Your task to perform on an android device: turn on javascript in the chrome app Image 0: 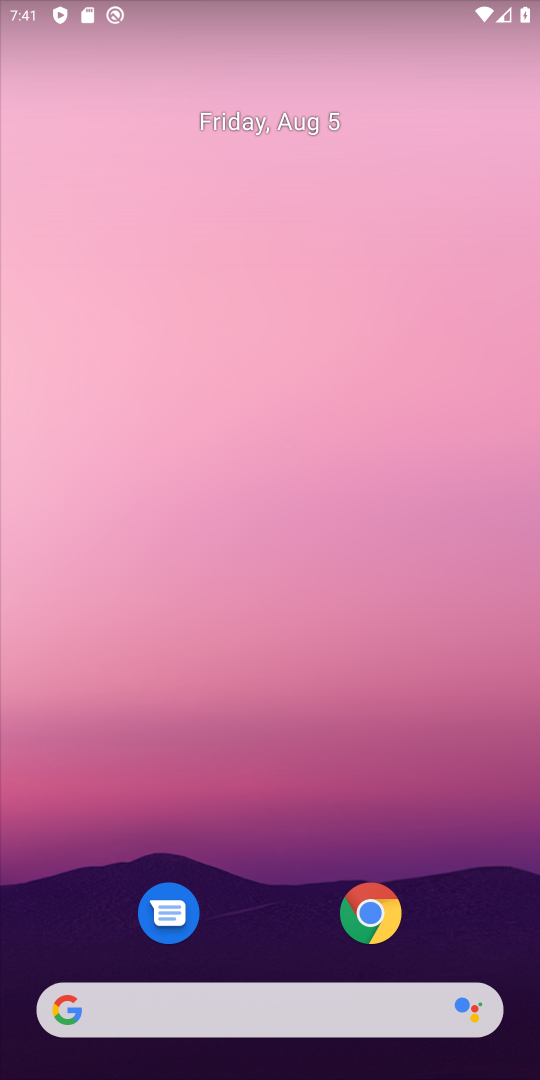
Step 0: press home button
Your task to perform on an android device: turn on javascript in the chrome app Image 1: 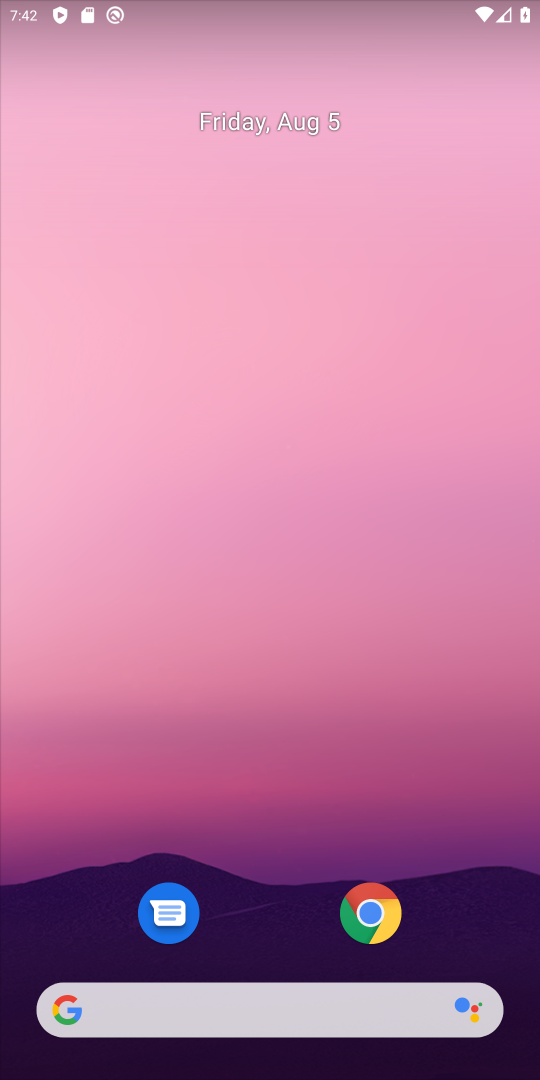
Step 1: drag from (275, 906) to (282, 276)
Your task to perform on an android device: turn on javascript in the chrome app Image 2: 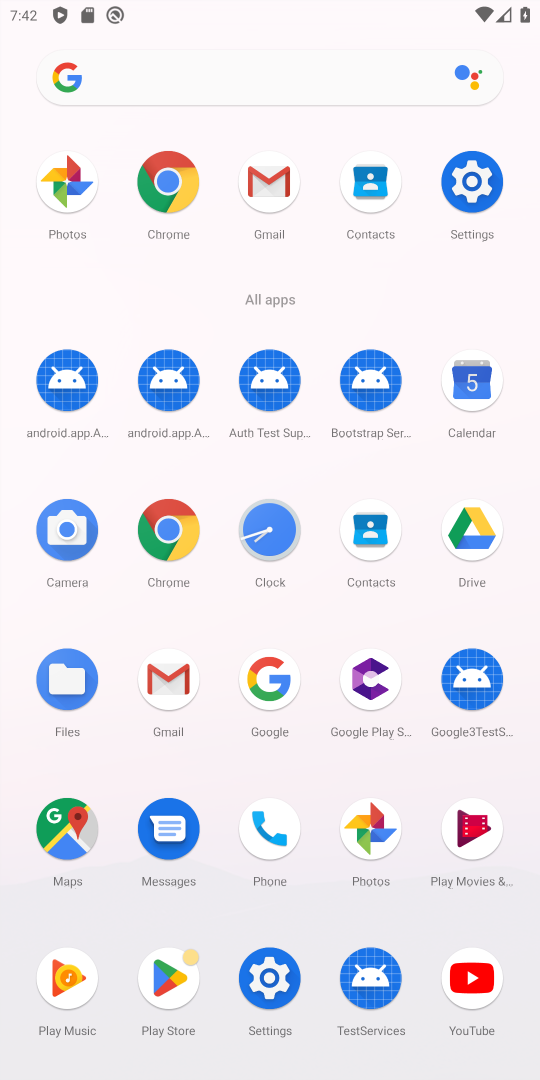
Step 2: click (162, 529)
Your task to perform on an android device: turn on javascript in the chrome app Image 3: 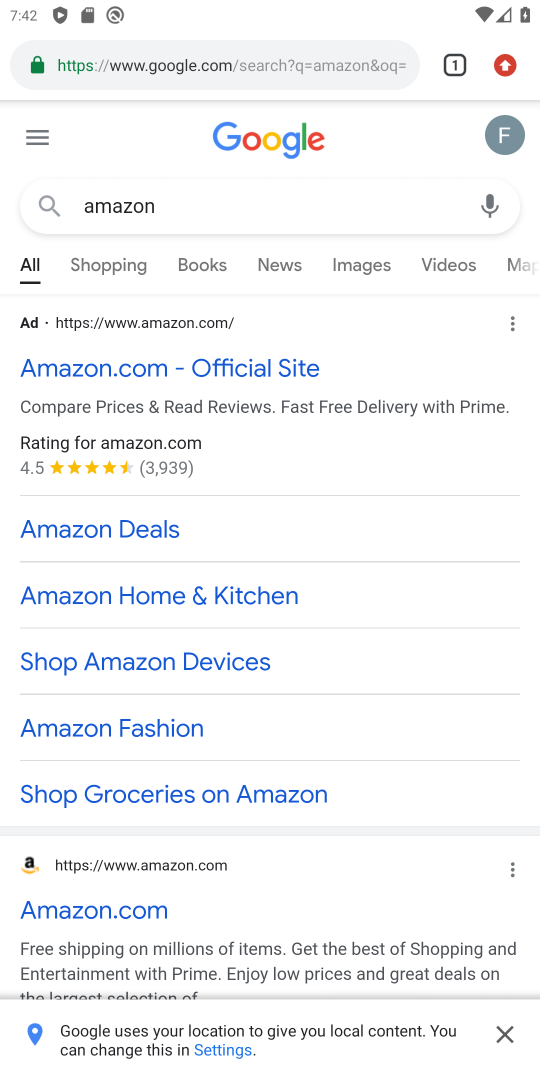
Step 3: click (507, 72)
Your task to perform on an android device: turn on javascript in the chrome app Image 4: 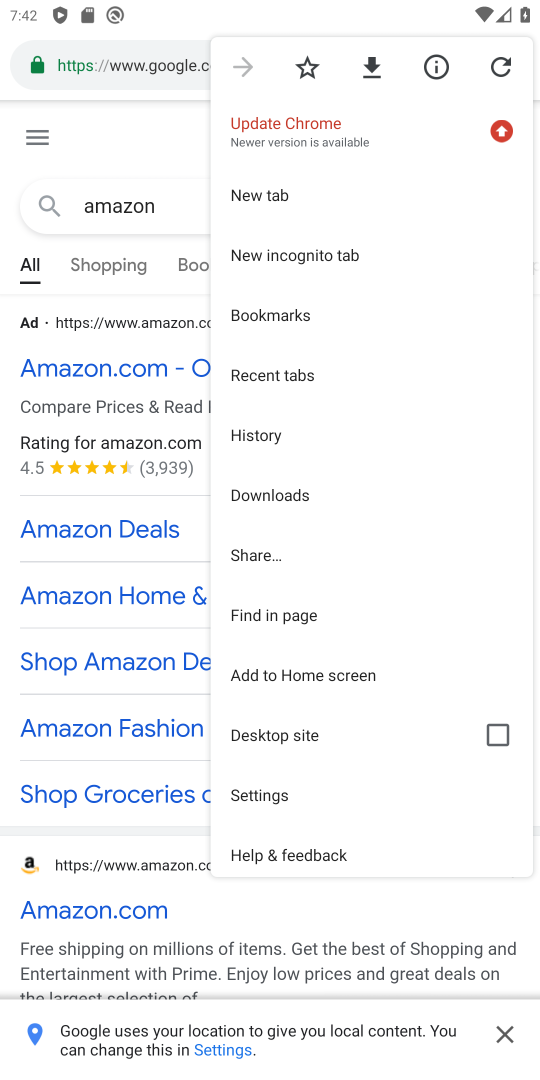
Step 4: drag from (422, 597) to (428, 432)
Your task to perform on an android device: turn on javascript in the chrome app Image 5: 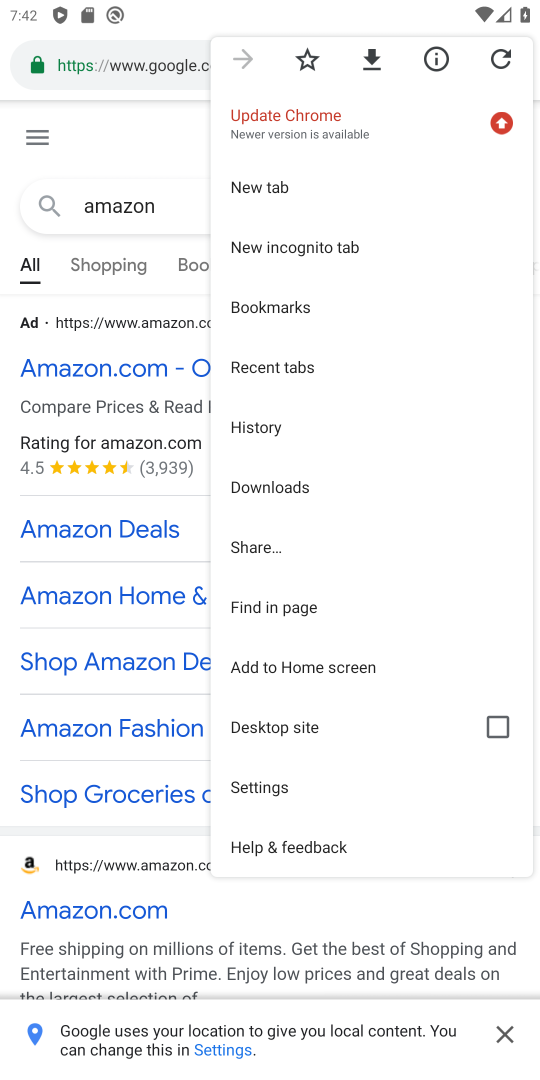
Step 5: click (341, 781)
Your task to perform on an android device: turn on javascript in the chrome app Image 6: 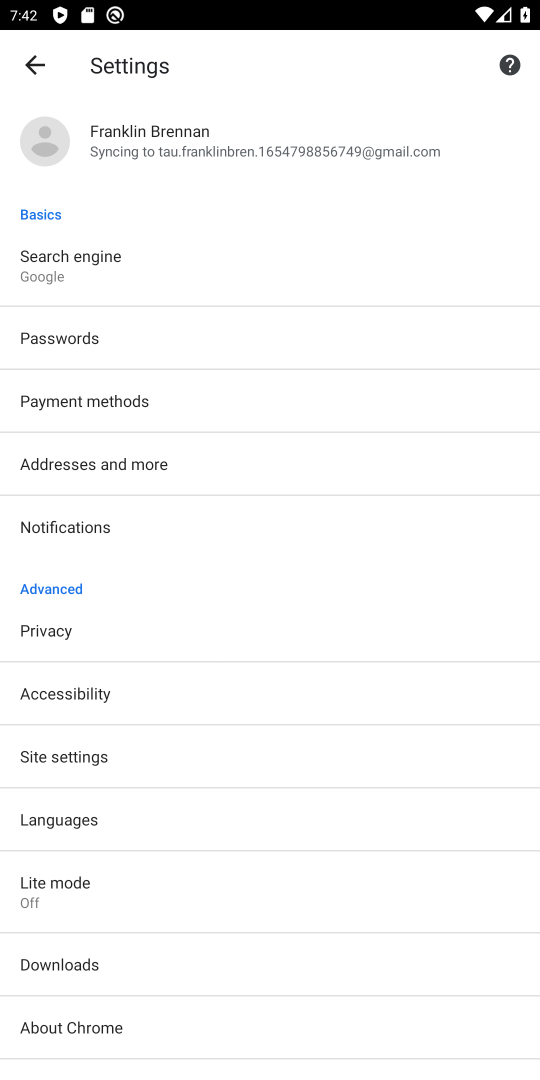
Step 6: drag from (415, 768) to (412, 632)
Your task to perform on an android device: turn on javascript in the chrome app Image 7: 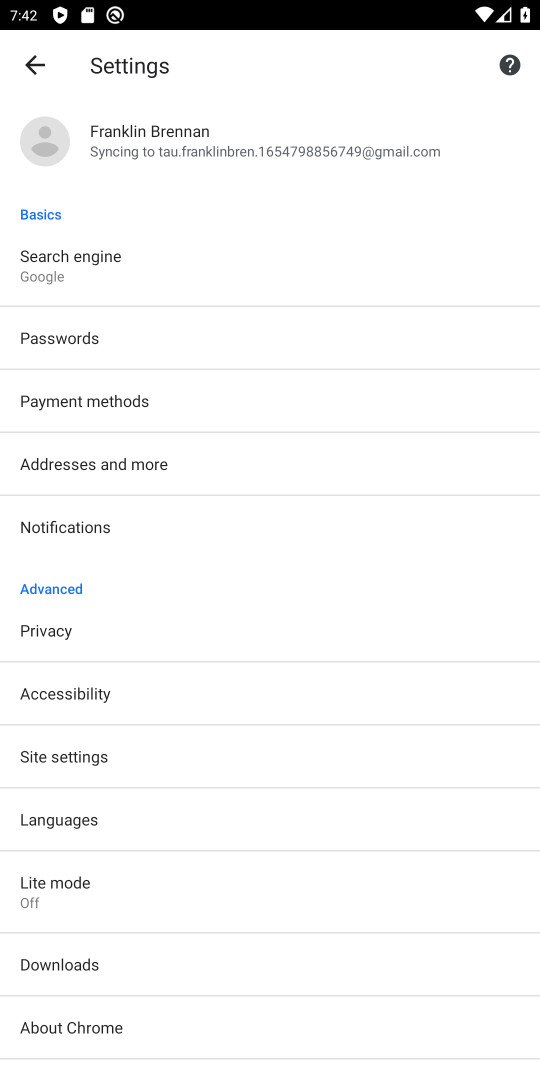
Step 7: click (380, 739)
Your task to perform on an android device: turn on javascript in the chrome app Image 8: 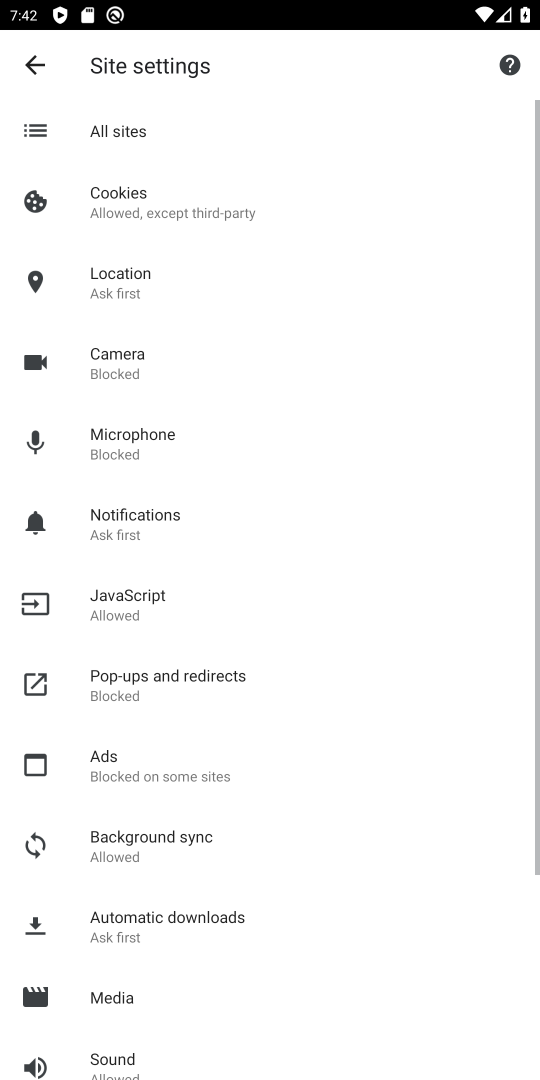
Step 8: drag from (380, 739) to (372, 575)
Your task to perform on an android device: turn on javascript in the chrome app Image 9: 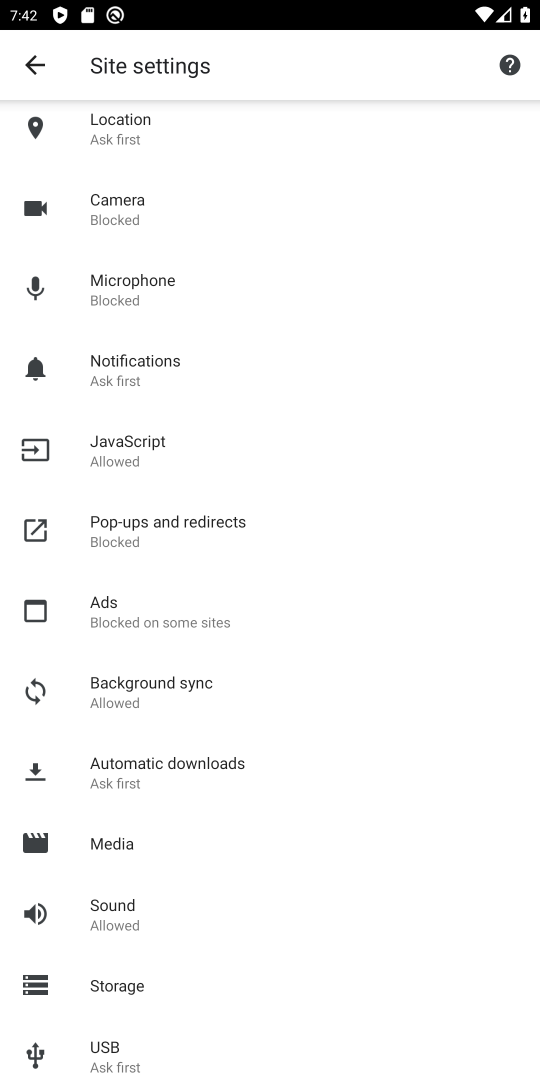
Step 9: drag from (357, 724) to (358, 564)
Your task to perform on an android device: turn on javascript in the chrome app Image 10: 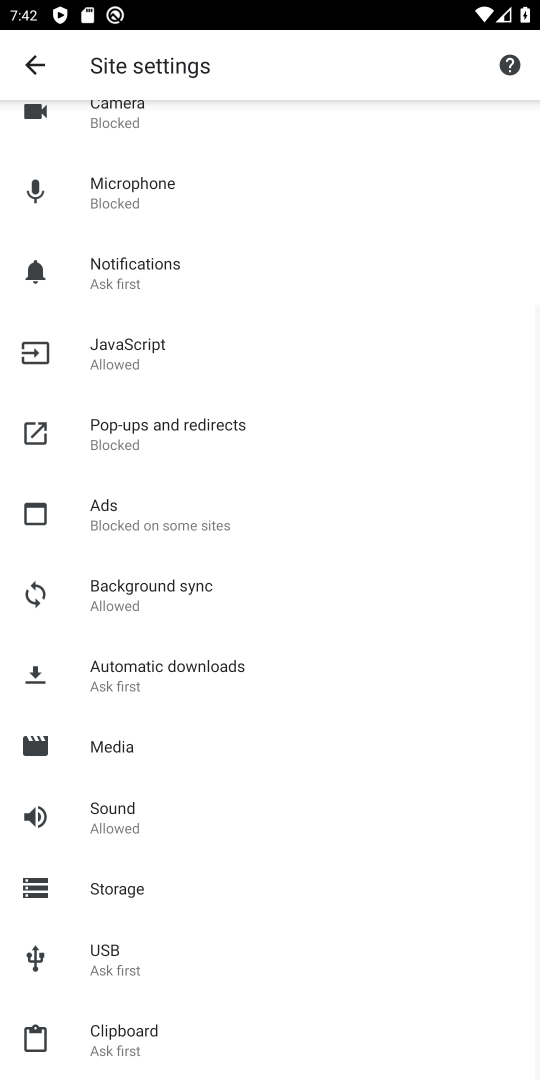
Step 10: drag from (361, 689) to (354, 531)
Your task to perform on an android device: turn on javascript in the chrome app Image 11: 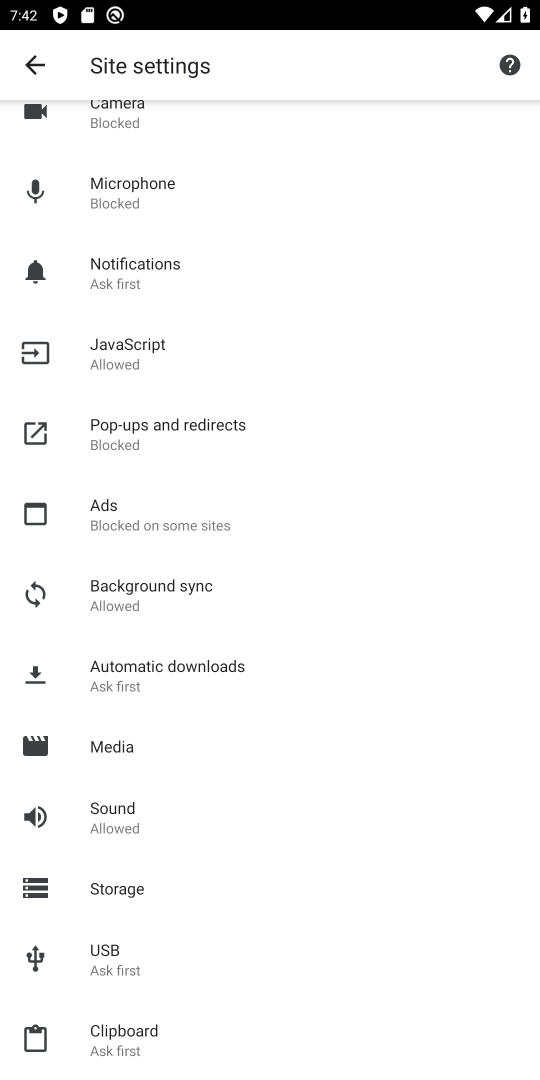
Step 11: click (168, 338)
Your task to perform on an android device: turn on javascript in the chrome app Image 12: 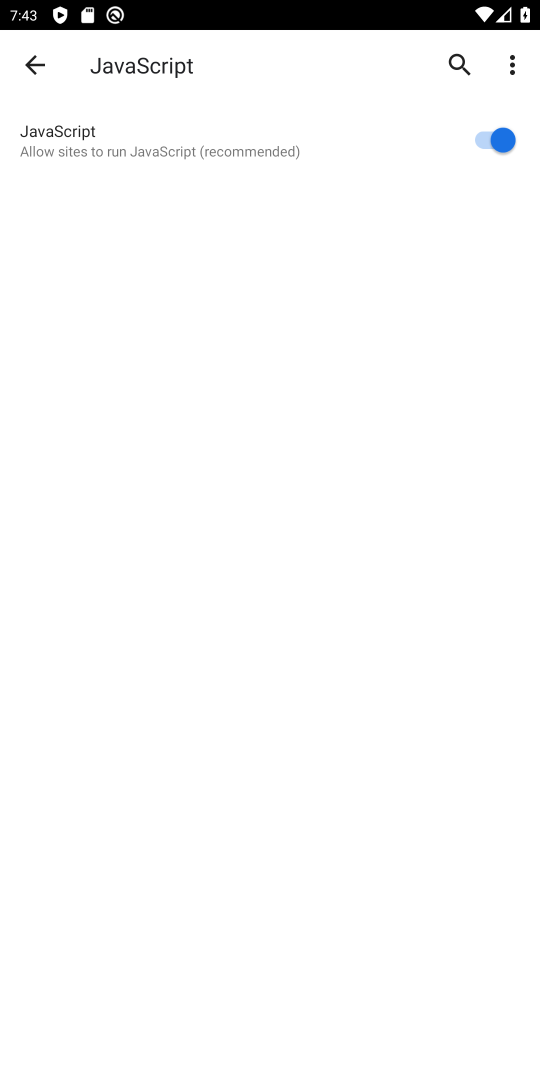
Step 12: task complete